Your task to perform on an android device: Open Chrome and go to settings Image 0: 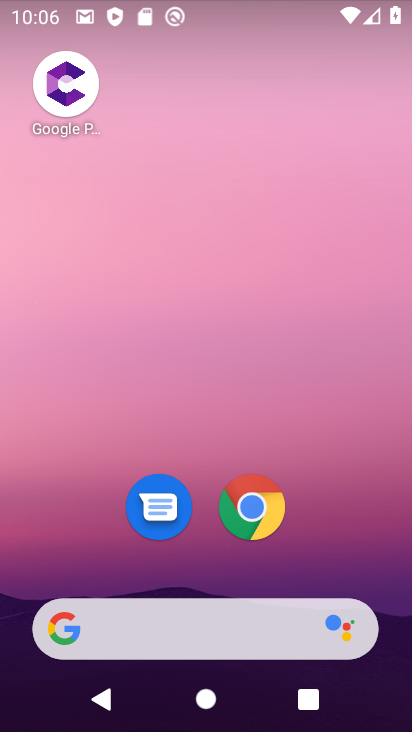
Step 0: click (259, 503)
Your task to perform on an android device: Open Chrome and go to settings Image 1: 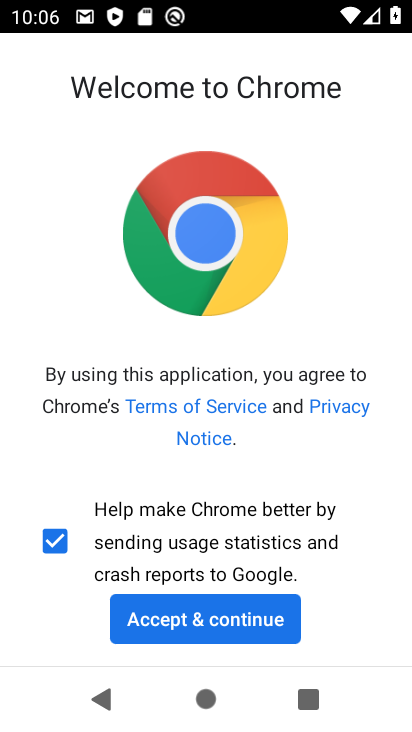
Step 1: click (250, 616)
Your task to perform on an android device: Open Chrome and go to settings Image 2: 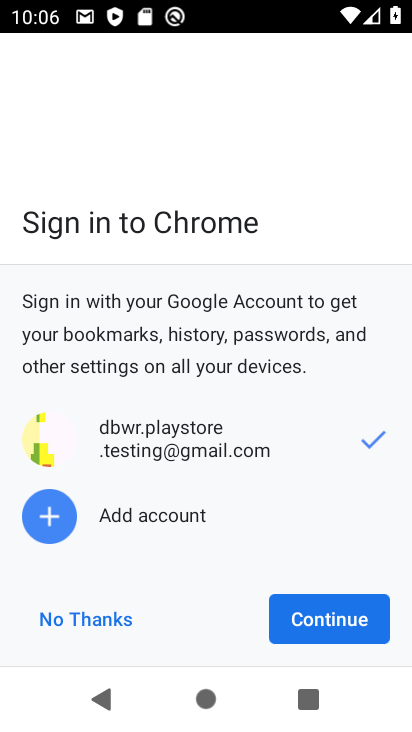
Step 2: click (290, 621)
Your task to perform on an android device: Open Chrome and go to settings Image 3: 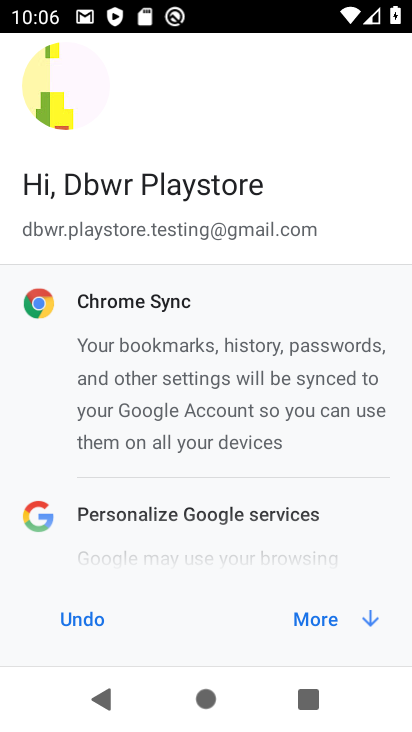
Step 3: click (303, 615)
Your task to perform on an android device: Open Chrome and go to settings Image 4: 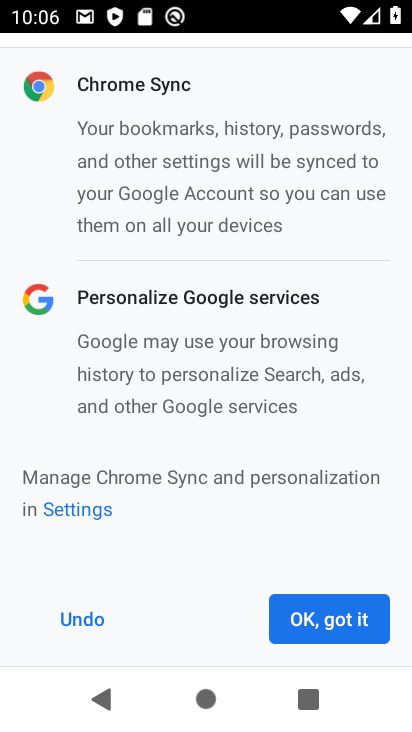
Step 4: click (304, 618)
Your task to perform on an android device: Open Chrome and go to settings Image 5: 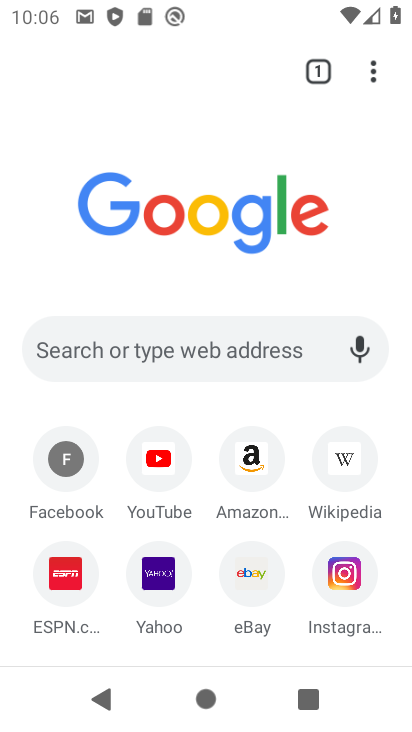
Step 5: click (374, 68)
Your task to perform on an android device: Open Chrome and go to settings Image 6: 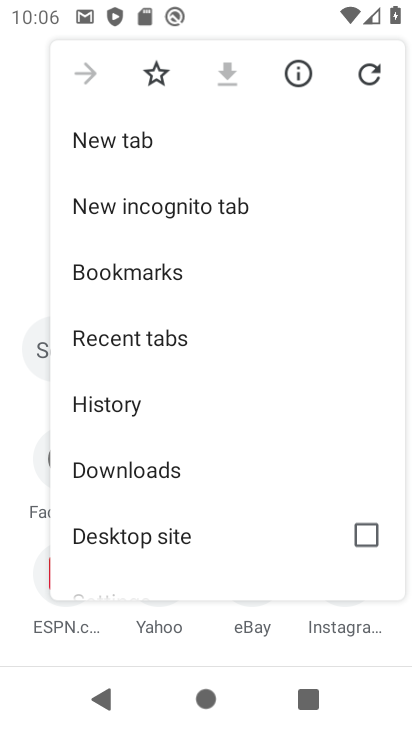
Step 6: drag from (252, 508) to (285, 166)
Your task to perform on an android device: Open Chrome and go to settings Image 7: 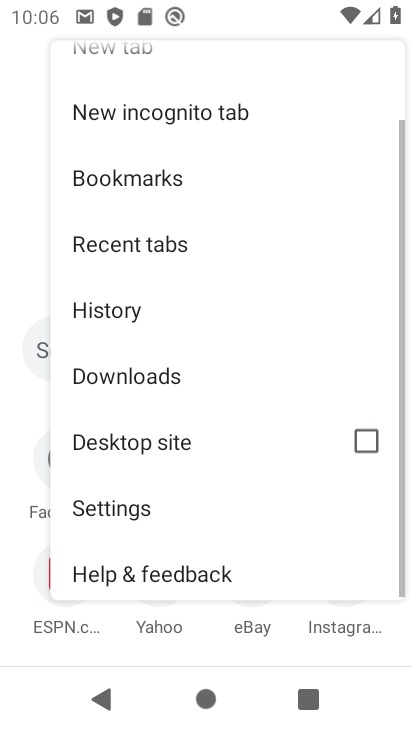
Step 7: click (147, 505)
Your task to perform on an android device: Open Chrome and go to settings Image 8: 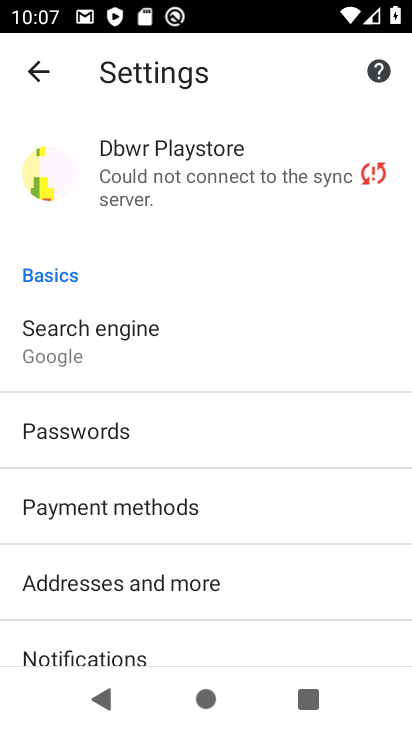
Step 8: task complete